Your task to perform on an android device: Go to display settings Image 0: 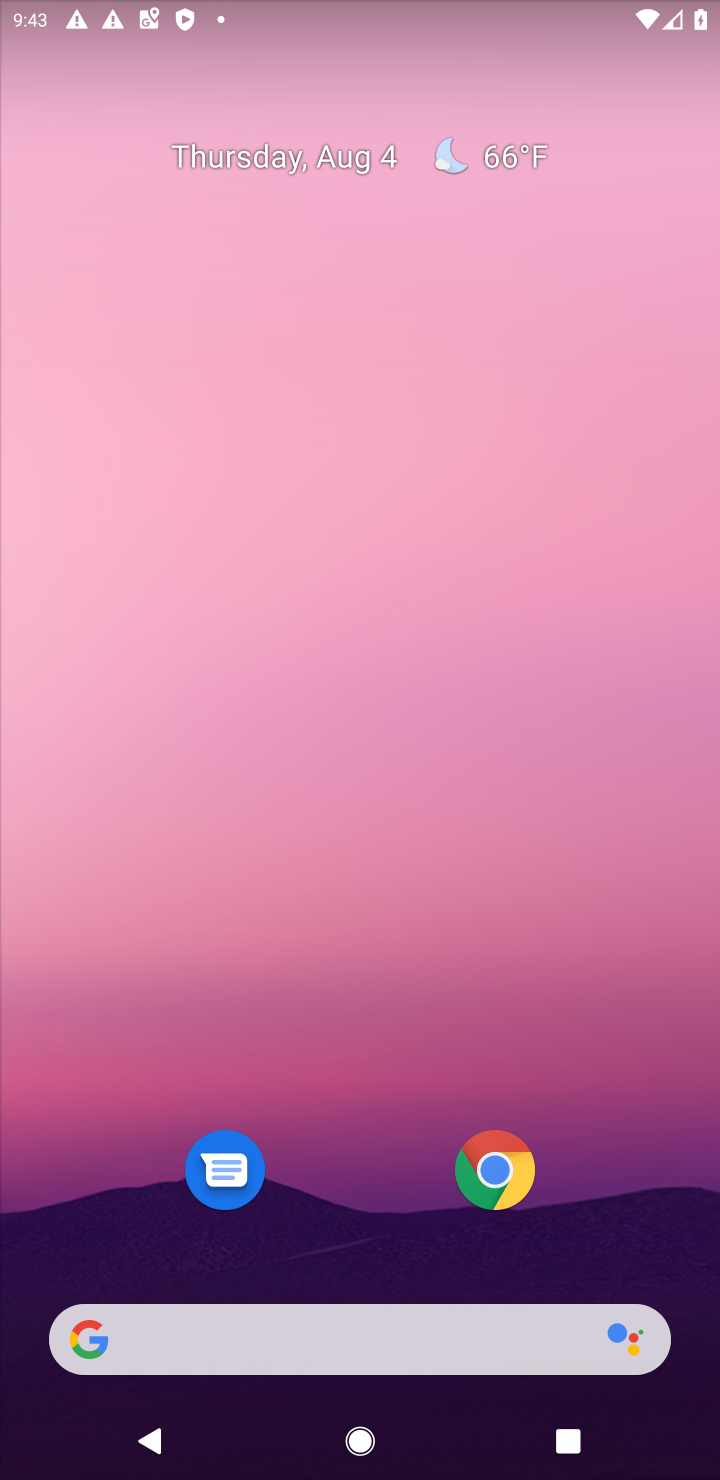
Step 0: drag from (449, 1201) to (426, 235)
Your task to perform on an android device: Go to display settings Image 1: 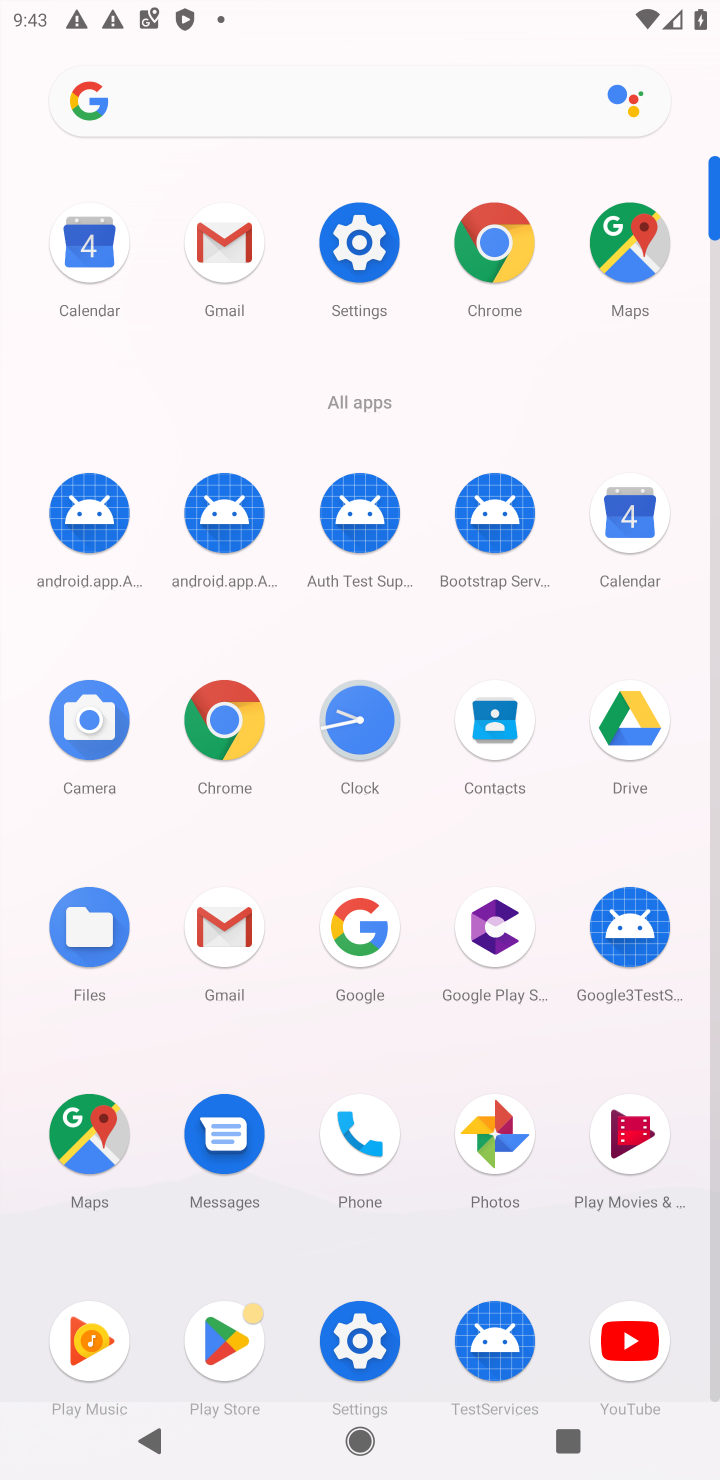
Step 1: click (373, 261)
Your task to perform on an android device: Go to display settings Image 2: 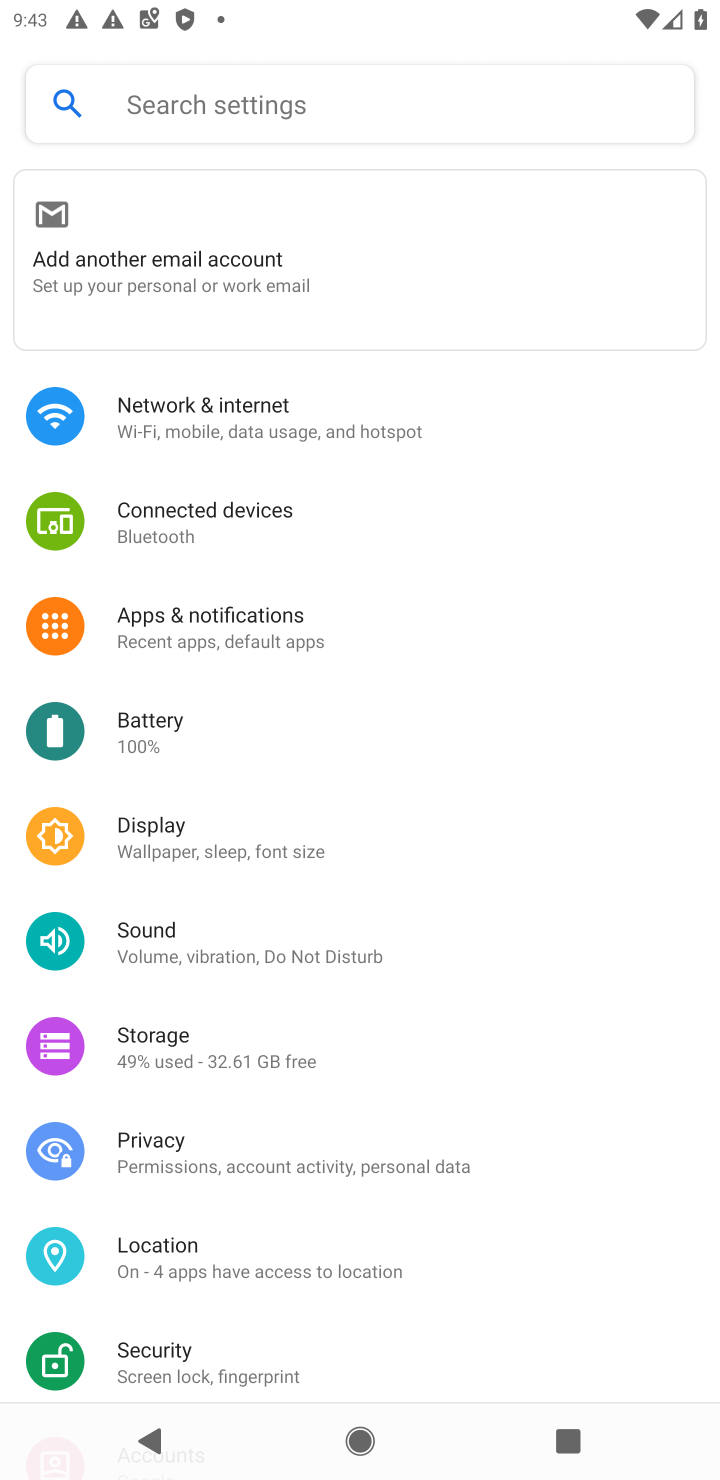
Step 2: click (161, 826)
Your task to perform on an android device: Go to display settings Image 3: 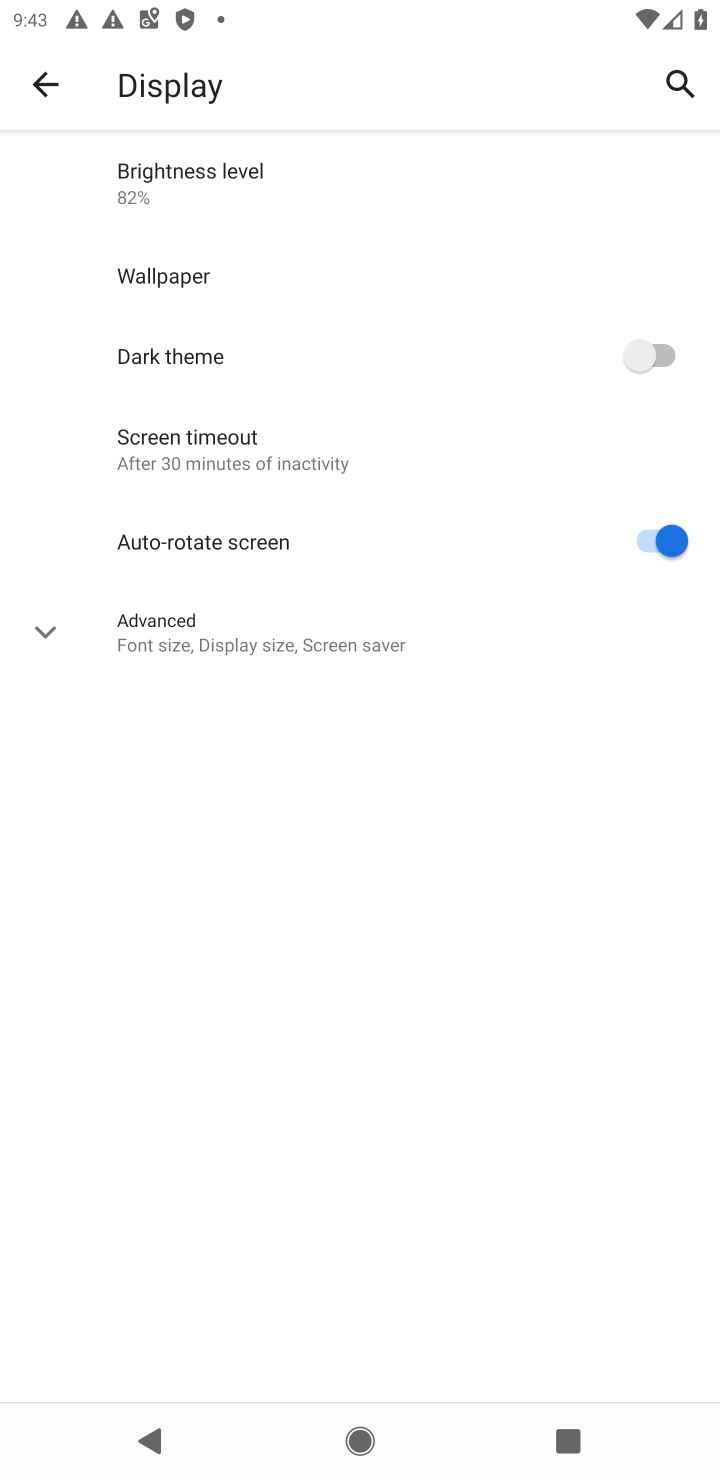
Step 3: task complete